Your task to perform on an android device: turn on the 24-hour format for clock Image 0: 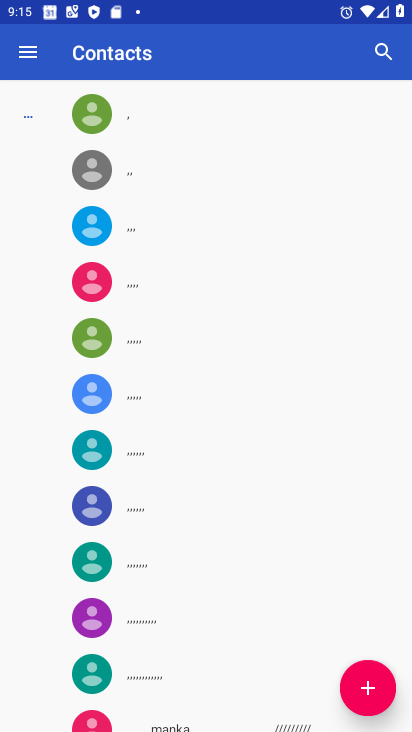
Step 0: press home button
Your task to perform on an android device: turn on the 24-hour format for clock Image 1: 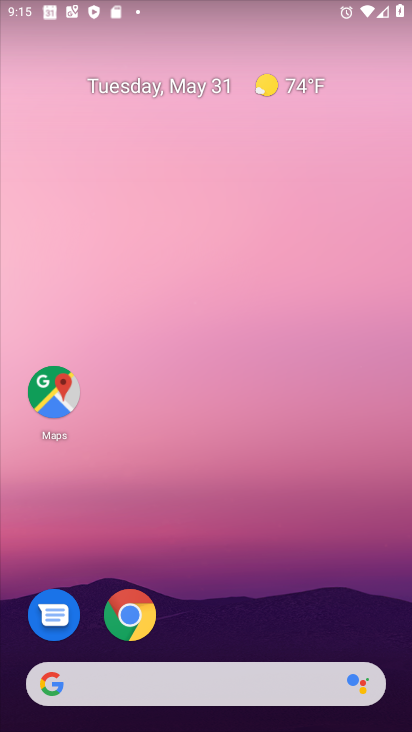
Step 1: drag from (201, 641) to (180, 184)
Your task to perform on an android device: turn on the 24-hour format for clock Image 2: 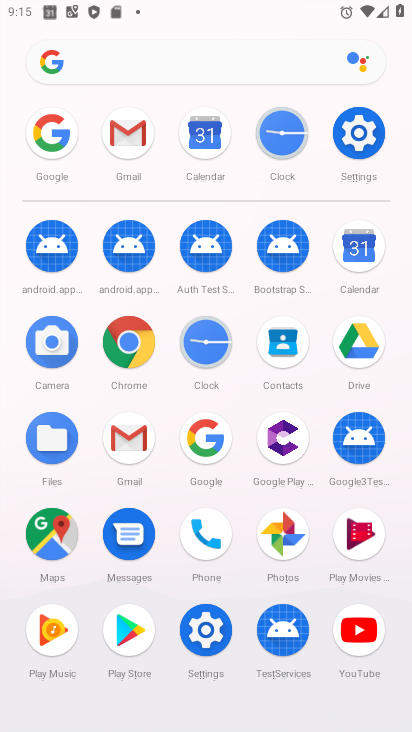
Step 2: click (280, 152)
Your task to perform on an android device: turn on the 24-hour format for clock Image 3: 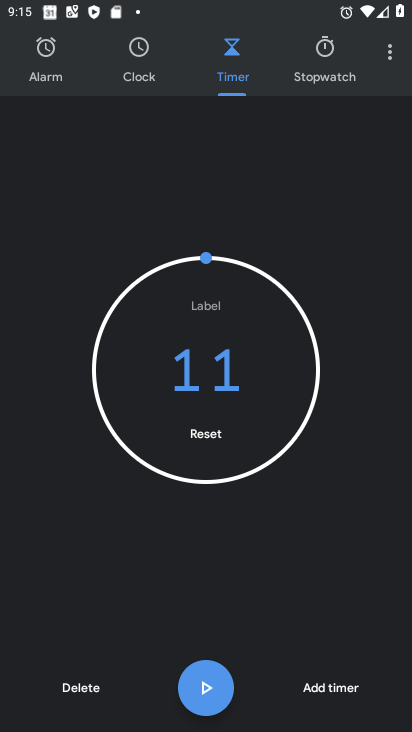
Step 3: click (392, 51)
Your task to perform on an android device: turn on the 24-hour format for clock Image 4: 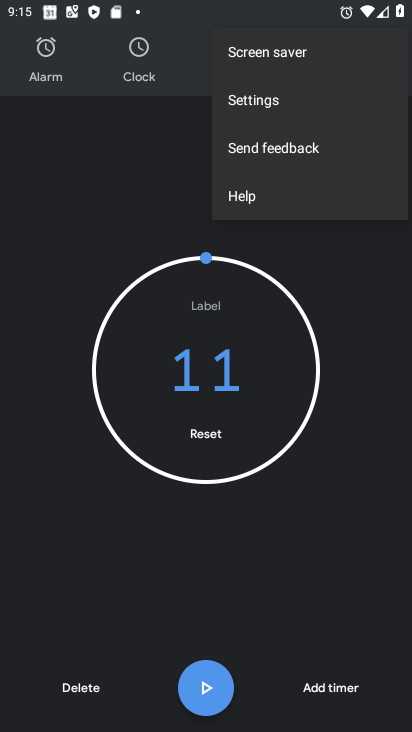
Step 4: click (318, 103)
Your task to perform on an android device: turn on the 24-hour format for clock Image 5: 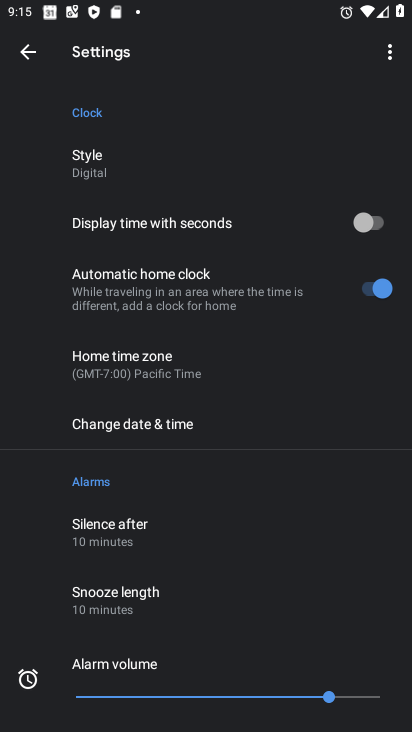
Step 5: click (181, 419)
Your task to perform on an android device: turn on the 24-hour format for clock Image 6: 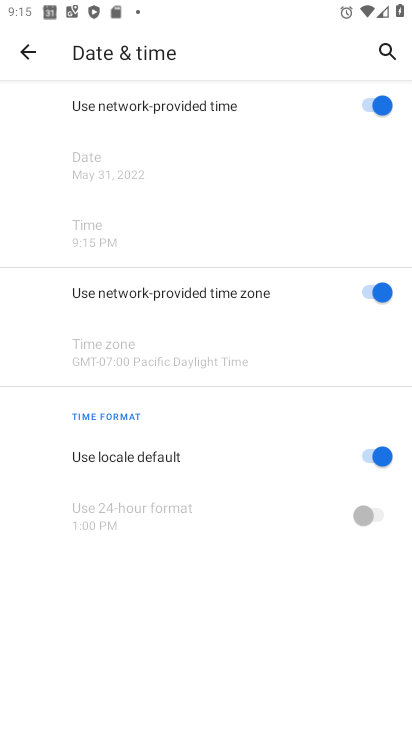
Step 6: click (369, 449)
Your task to perform on an android device: turn on the 24-hour format for clock Image 7: 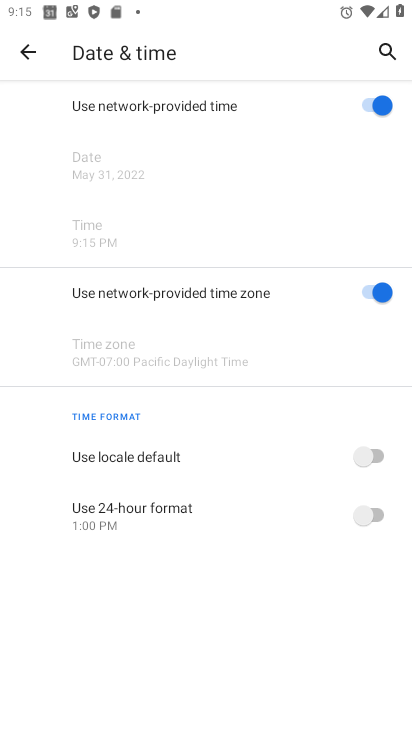
Step 7: click (382, 501)
Your task to perform on an android device: turn on the 24-hour format for clock Image 8: 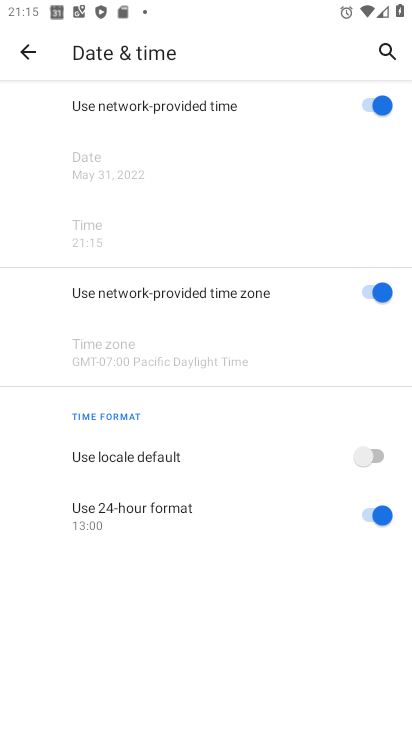
Step 8: task complete